Your task to perform on an android device: open wifi settings Image 0: 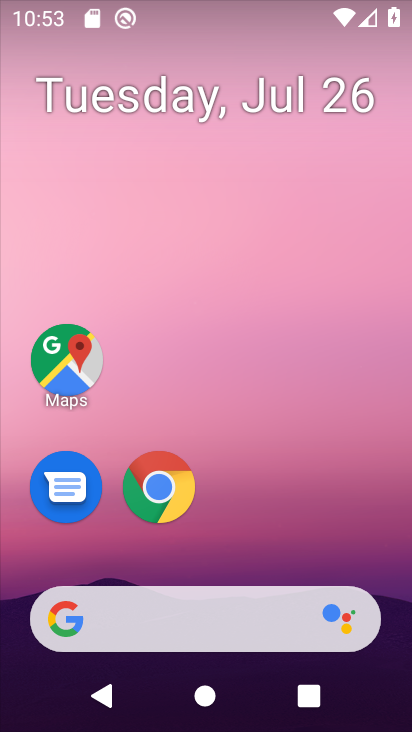
Step 0: drag from (87, 9) to (76, 335)
Your task to perform on an android device: open wifi settings Image 1: 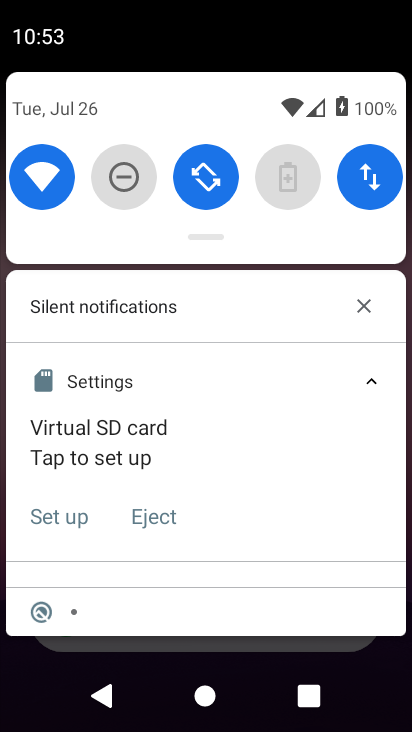
Step 1: click (30, 160)
Your task to perform on an android device: open wifi settings Image 2: 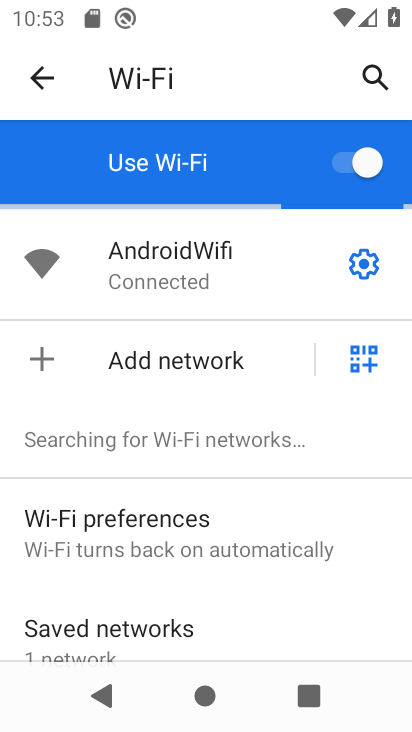
Step 2: task complete